Your task to perform on an android device: open app "Adobe Express: Graphic Design" (install if not already installed) Image 0: 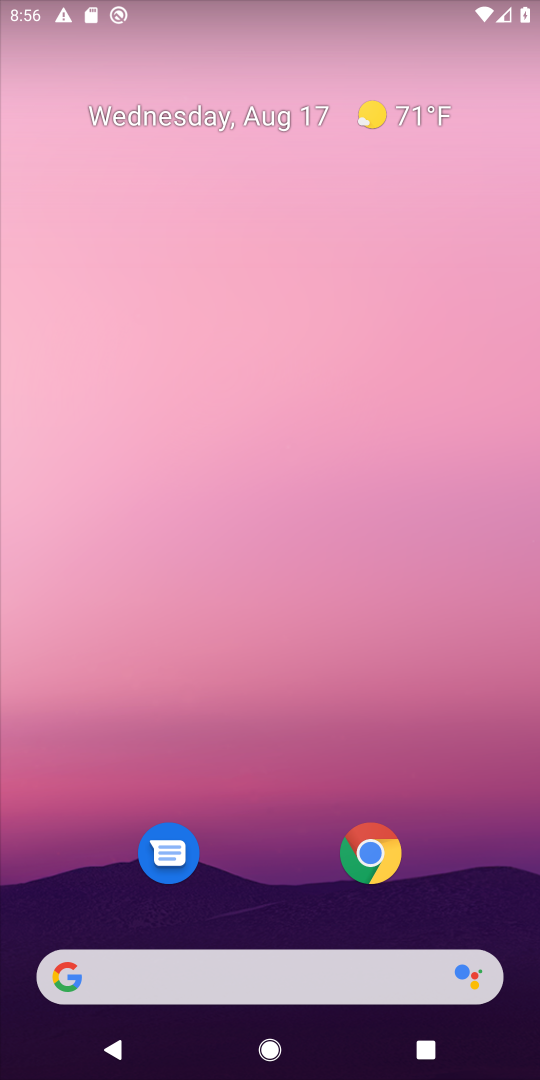
Step 0: drag from (240, 809) to (280, 255)
Your task to perform on an android device: open app "Adobe Express: Graphic Design" (install if not already installed) Image 1: 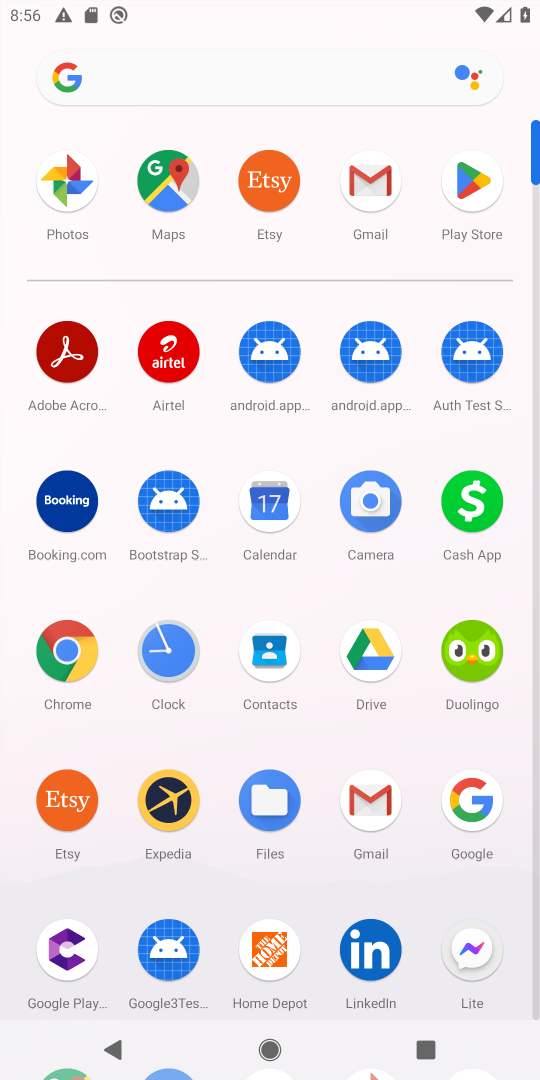
Step 1: click (445, 202)
Your task to perform on an android device: open app "Adobe Express: Graphic Design" (install if not already installed) Image 2: 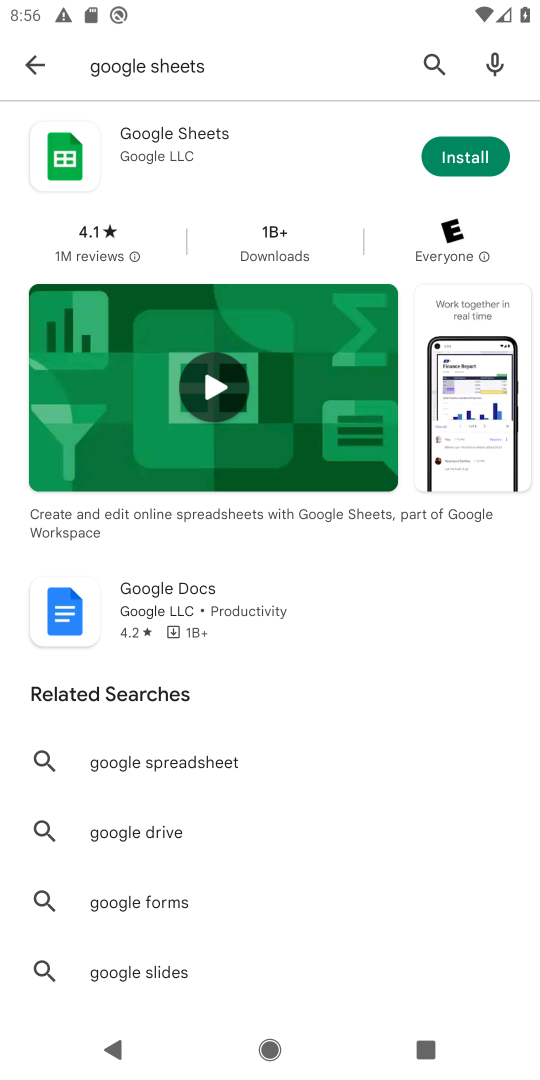
Step 2: click (423, 67)
Your task to perform on an android device: open app "Adobe Express: Graphic Design" (install if not already installed) Image 3: 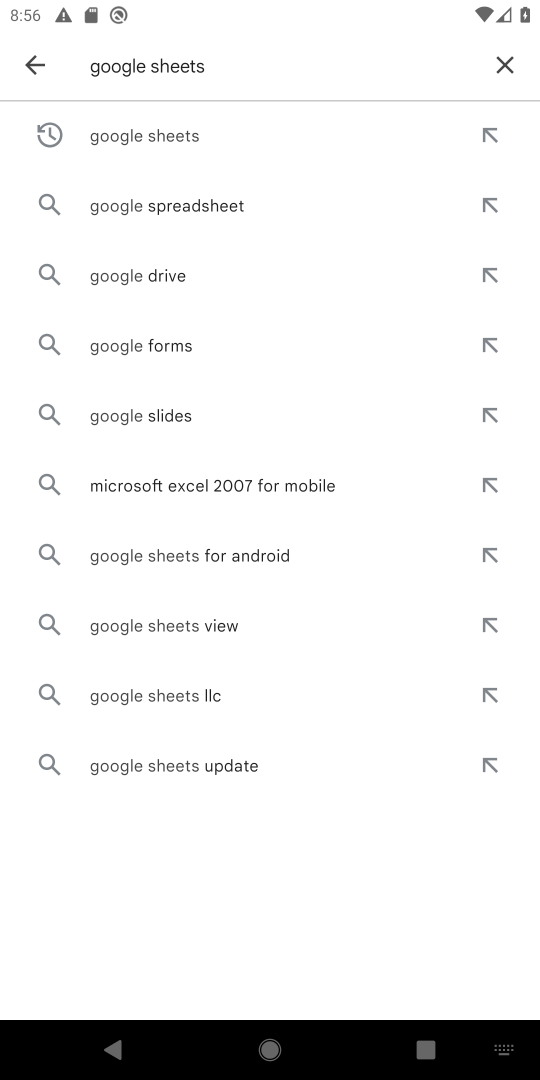
Step 3: click (493, 65)
Your task to perform on an android device: open app "Adobe Express: Graphic Design" (install if not already installed) Image 4: 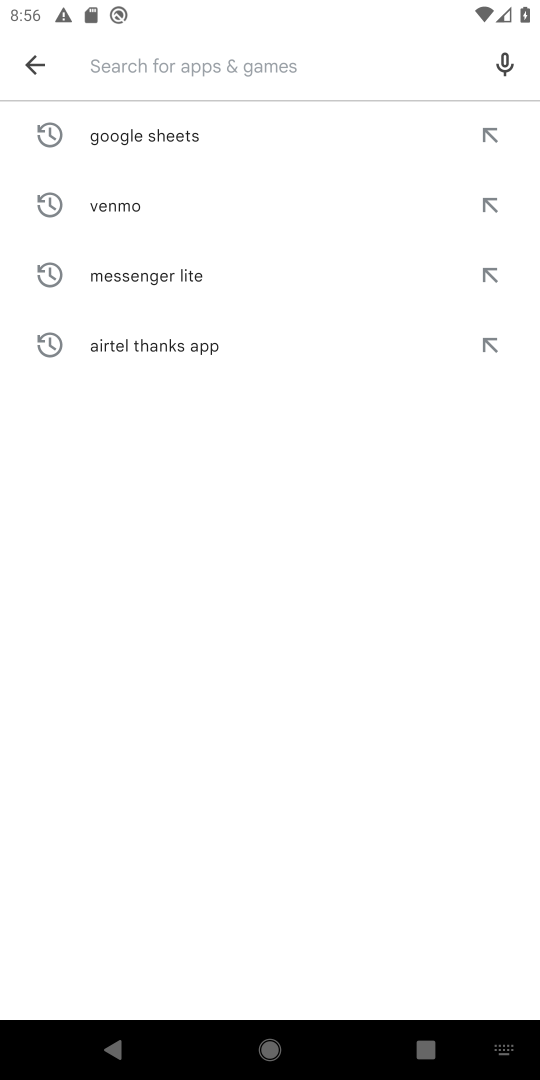
Step 4: type "Adobe Express: Graphic Design"
Your task to perform on an android device: open app "Adobe Express: Graphic Design" (install if not already installed) Image 5: 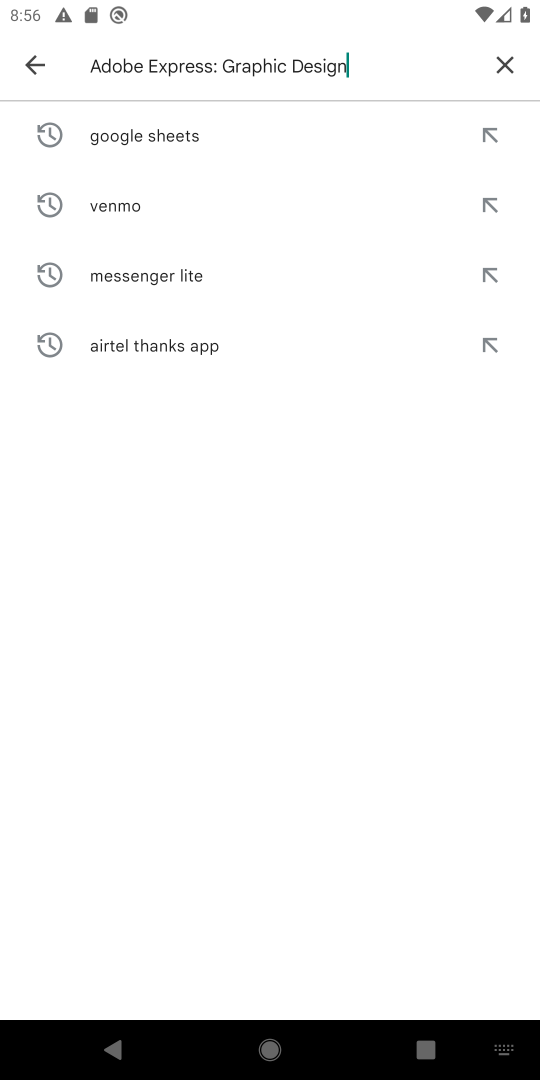
Step 5: type ""
Your task to perform on an android device: open app "Adobe Express: Graphic Design" (install if not already installed) Image 6: 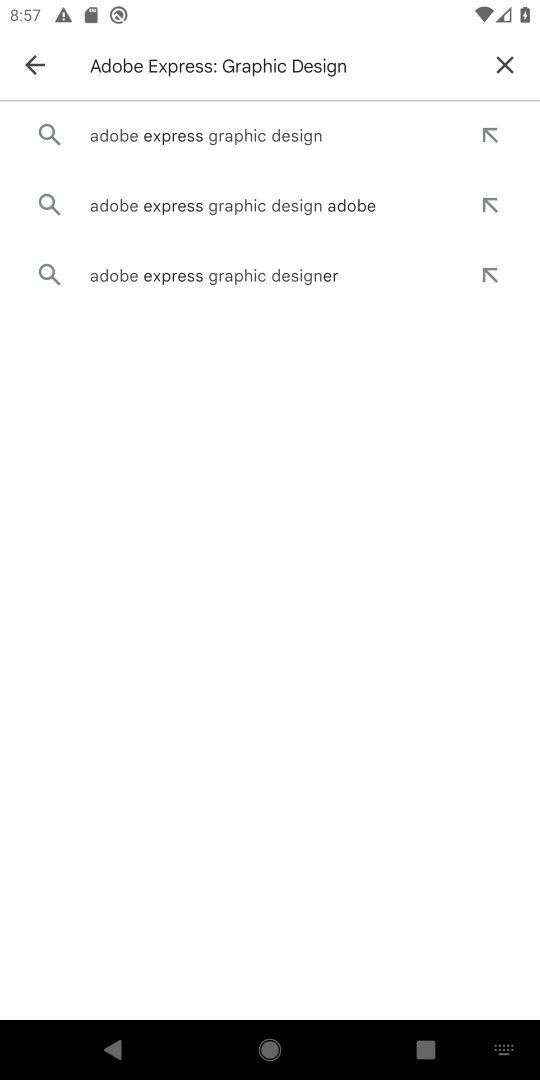
Step 6: click (218, 141)
Your task to perform on an android device: open app "Adobe Express: Graphic Design" (install if not already installed) Image 7: 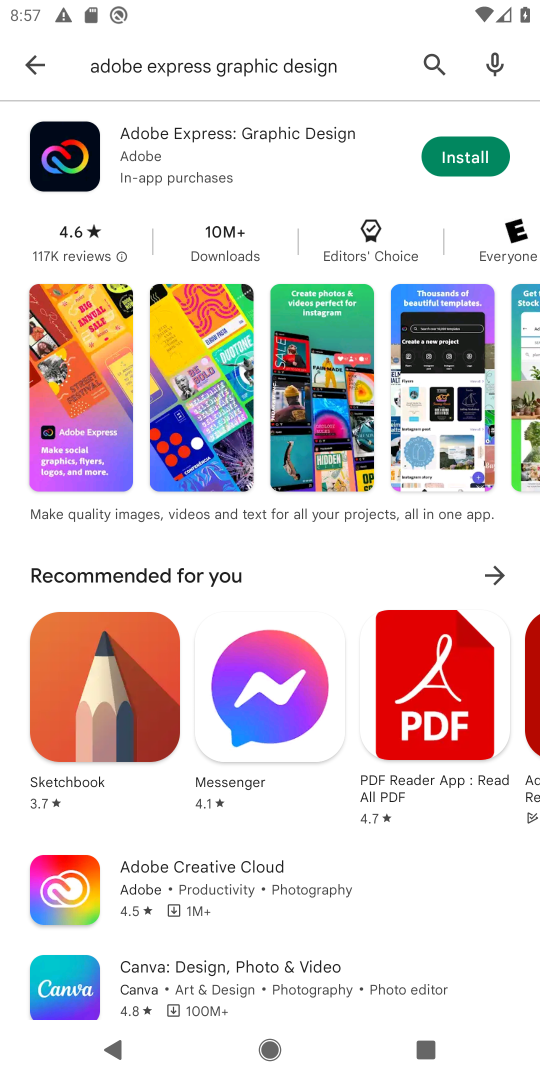
Step 7: click (489, 149)
Your task to perform on an android device: open app "Adobe Express: Graphic Design" (install if not already installed) Image 8: 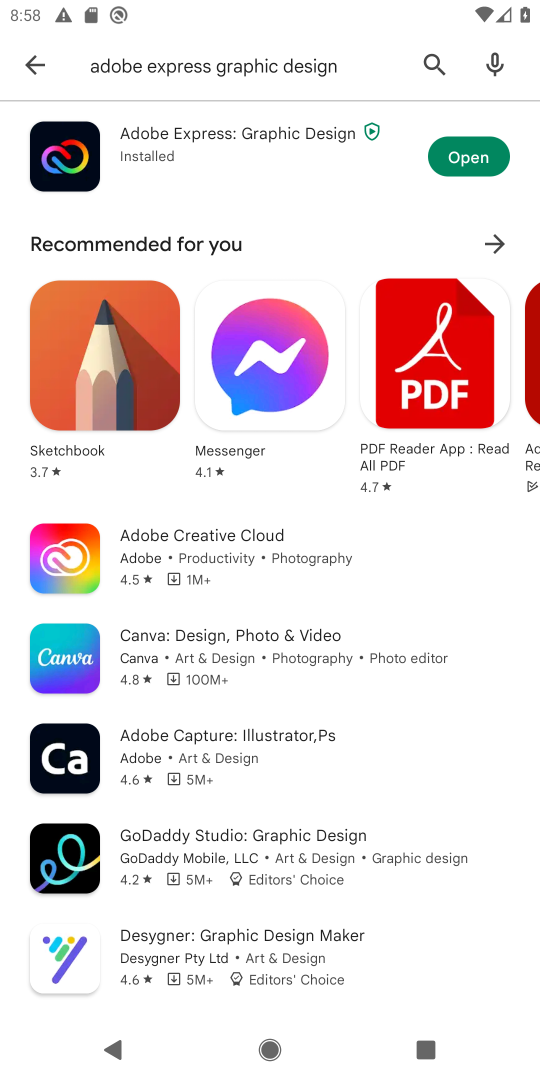
Step 8: click (489, 149)
Your task to perform on an android device: open app "Adobe Express: Graphic Design" (install if not already installed) Image 9: 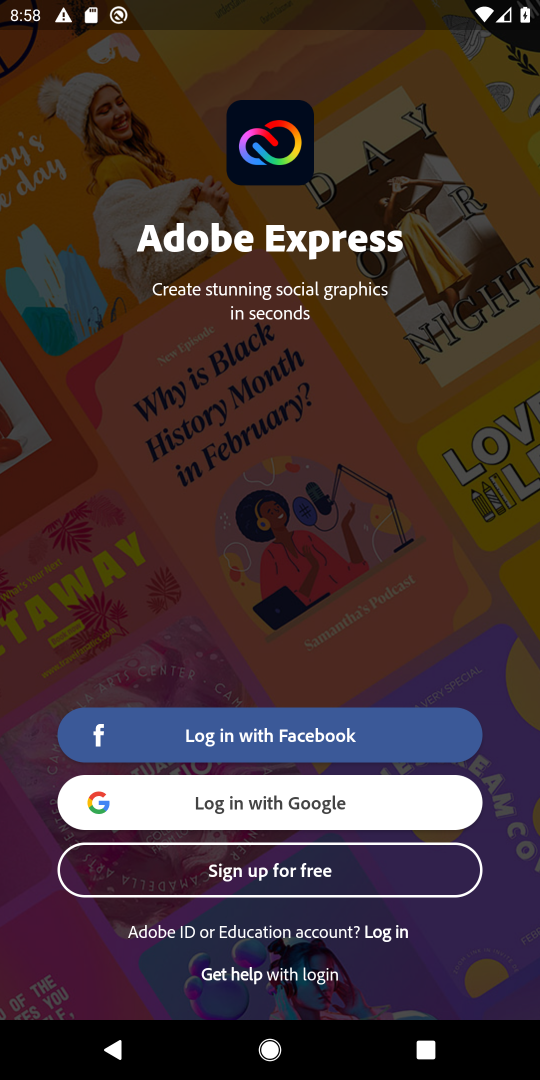
Step 9: task complete